Your task to perform on an android device: Open calendar and show me the second week of next month Image 0: 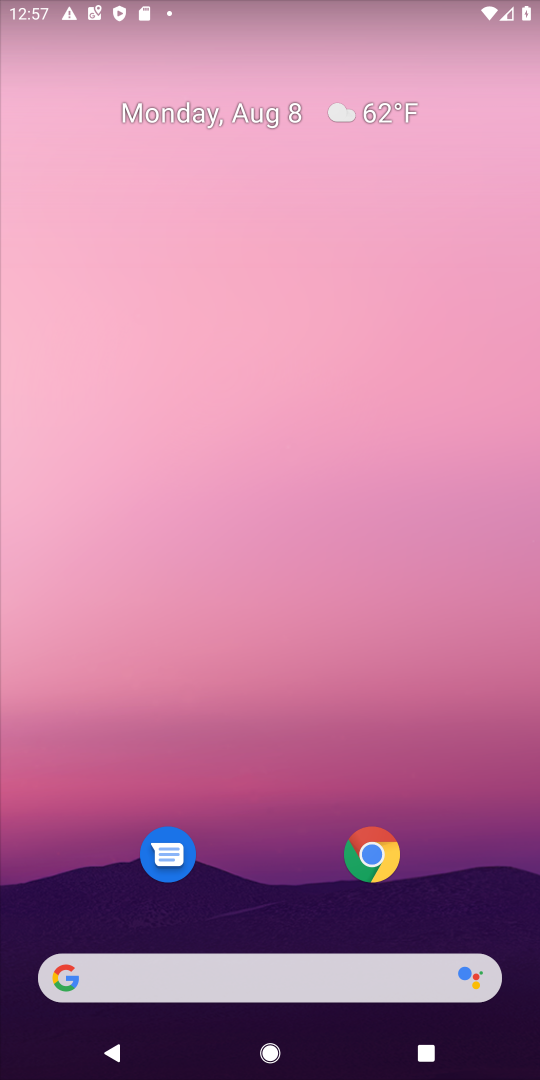
Step 0: press home button
Your task to perform on an android device: Open calendar and show me the second week of next month Image 1: 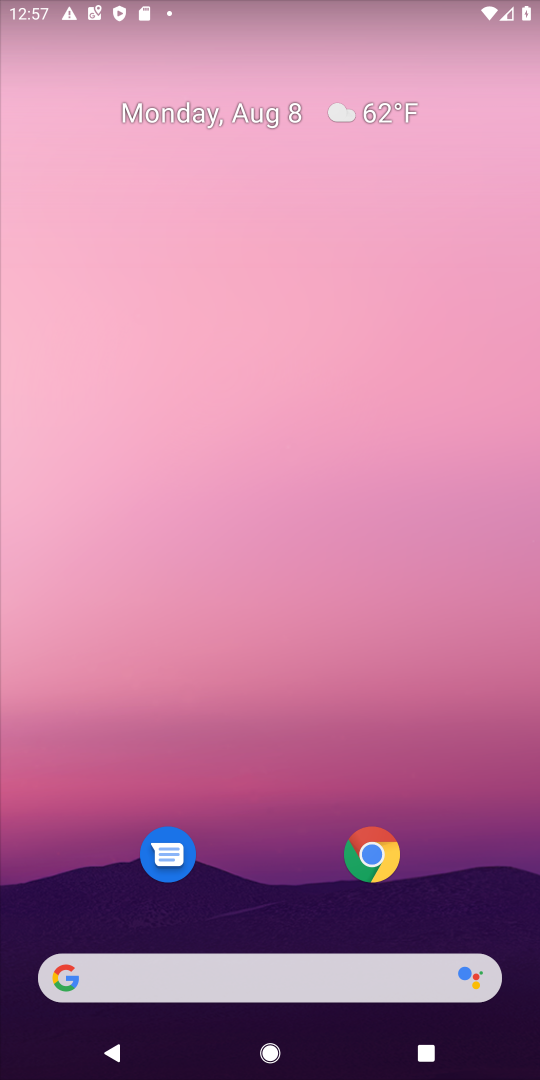
Step 1: drag from (279, 857) to (277, 131)
Your task to perform on an android device: Open calendar and show me the second week of next month Image 2: 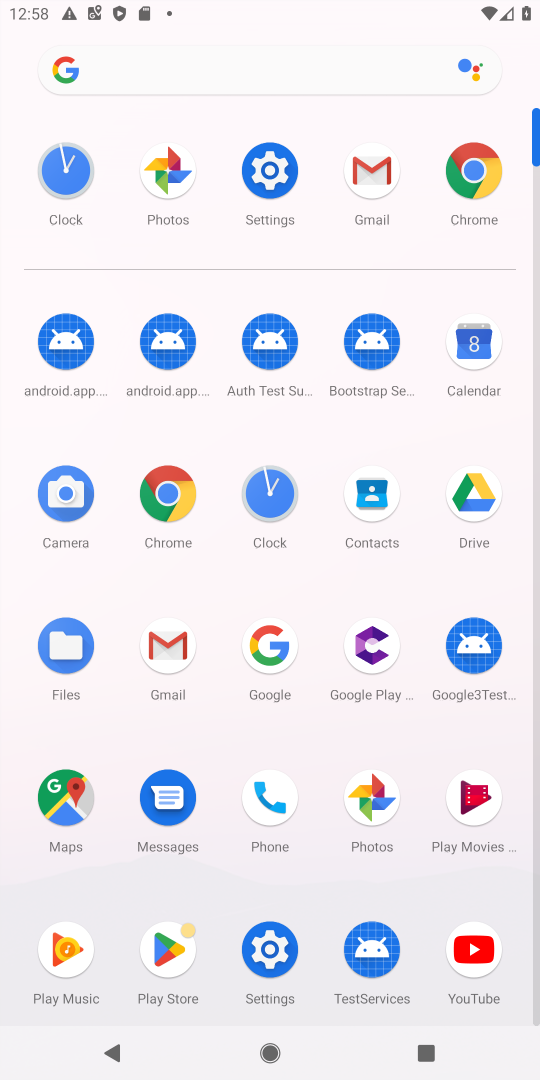
Step 2: click (478, 331)
Your task to perform on an android device: Open calendar and show me the second week of next month Image 3: 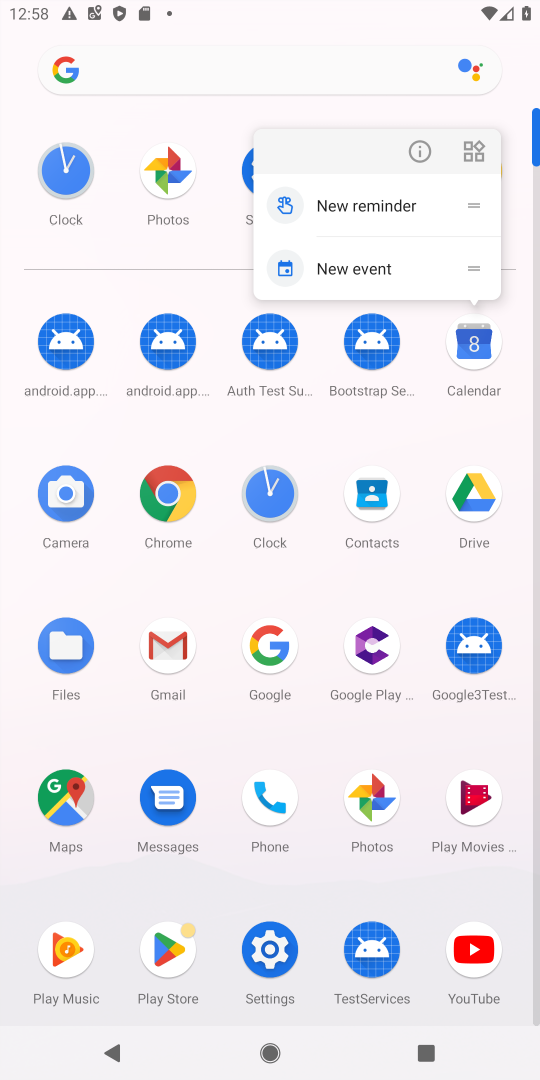
Step 3: click (482, 347)
Your task to perform on an android device: Open calendar and show me the second week of next month Image 4: 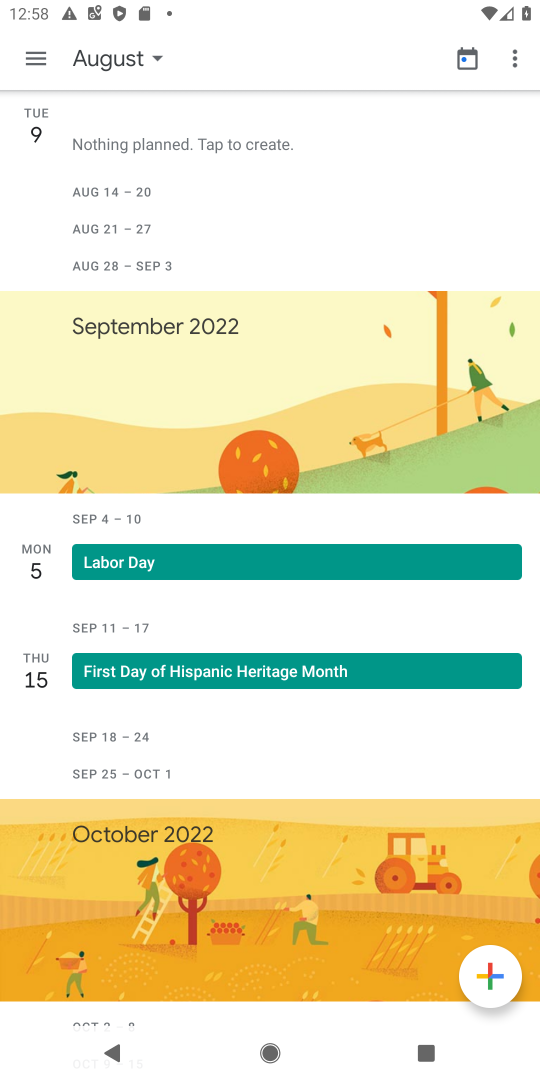
Step 4: click (31, 61)
Your task to perform on an android device: Open calendar and show me the second week of next month Image 5: 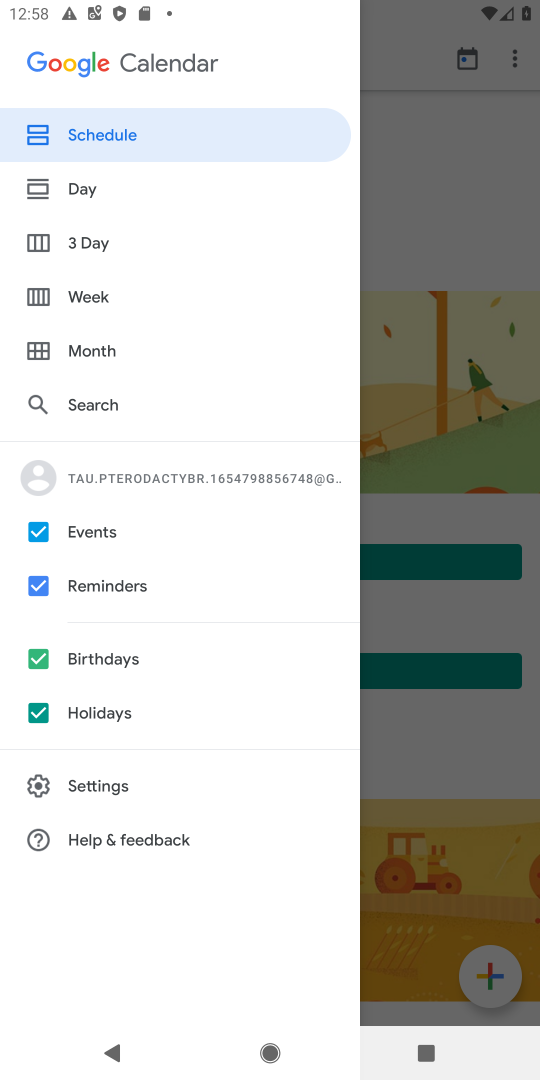
Step 5: click (98, 349)
Your task to perform on an android device: Open calendar and show me the second week of next month Image 6: 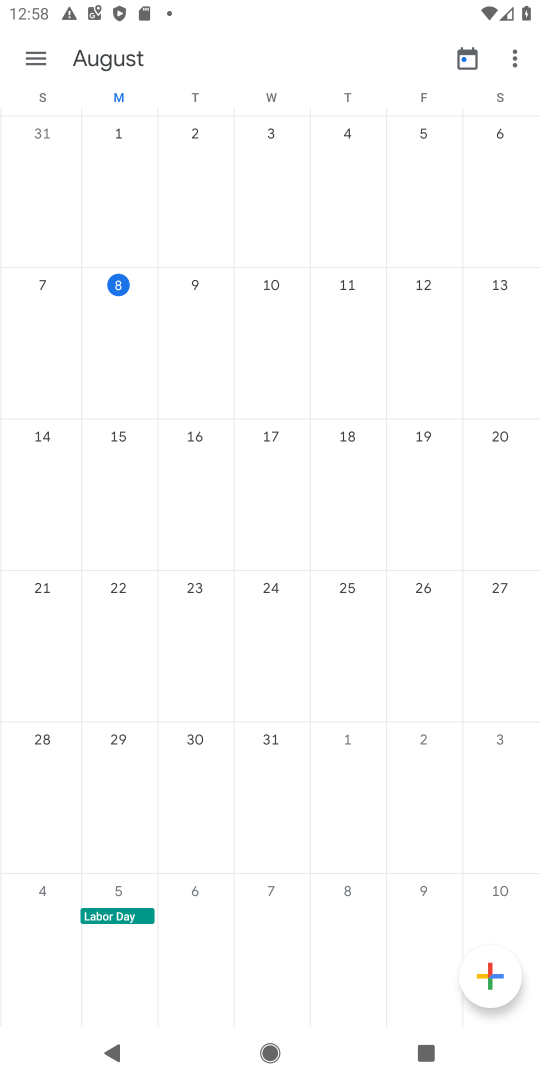
Step 6: task complete